Your task to perform on an android device: set the timer Image 0: 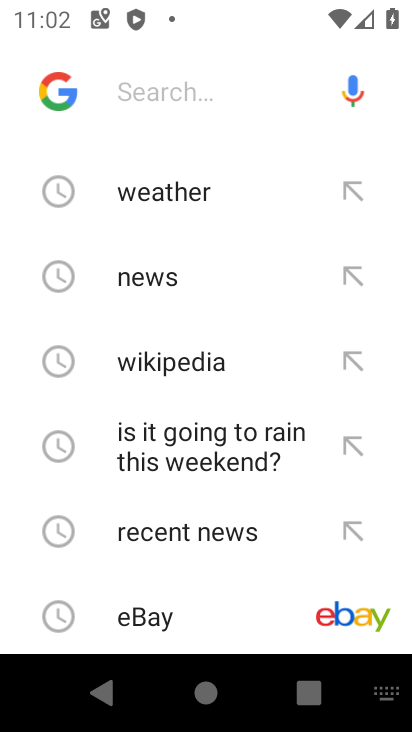
Step 0: press home button
Your task to perform on an android device: set the timer Image 1: 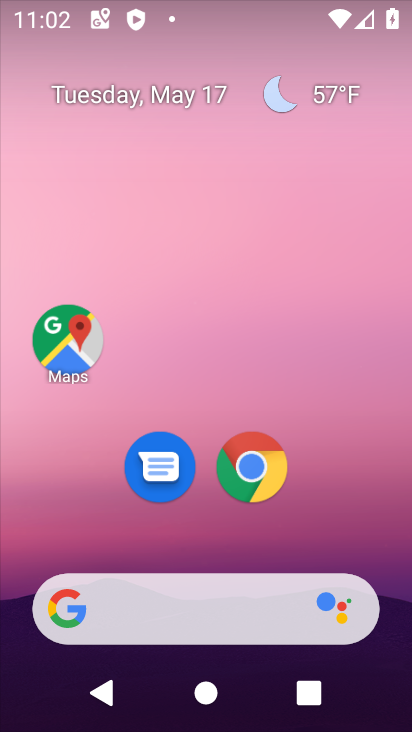
Step 1: click (66, 340)
Your task to perform on an android device: set the timer Image 2: 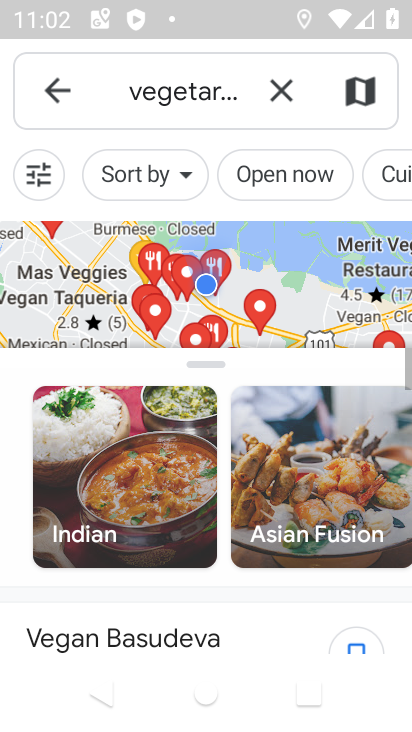
Step 2: press home button
Your task to perform on an android device: set the timer Image 3: 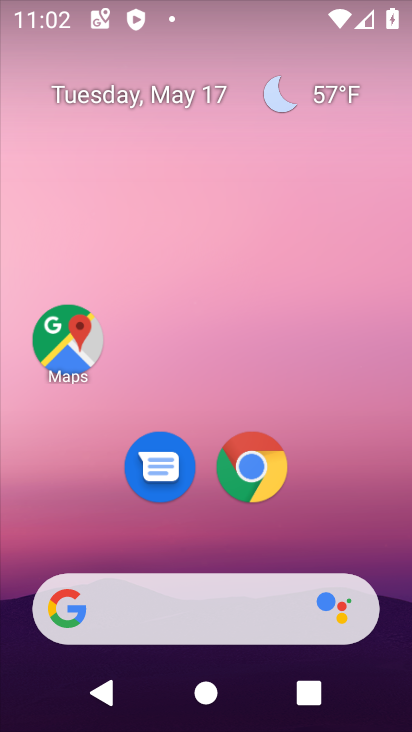
Step 3: drag from (185, 495) to (234, 84)
Your task to perform on an android device: set the timer Image 4: 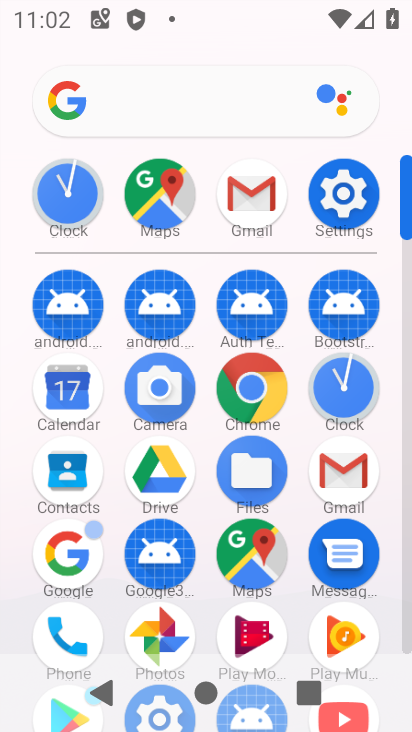
Step 4: click (349, 394)
Your task to perform on an android device: set the timer Image 5: 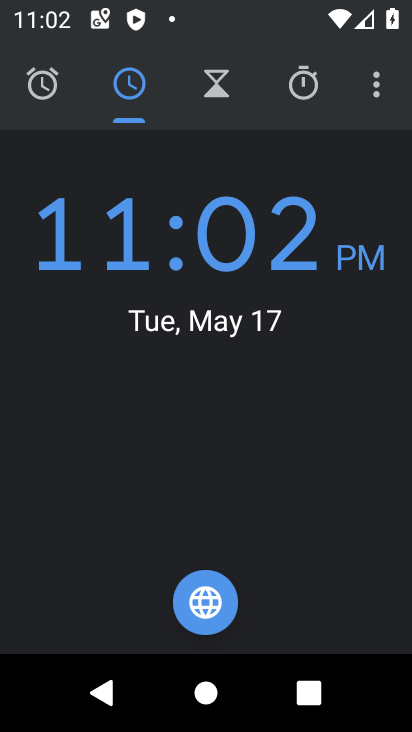
Step 5: click (218, 81)
Your task to perform on an android device: set the timer Image 6: 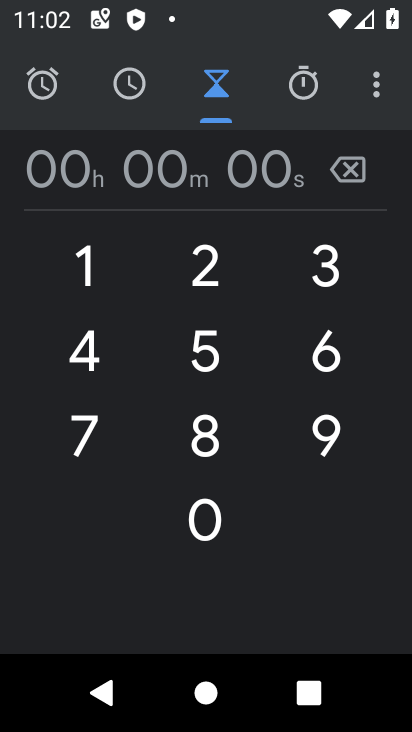
Step 6: click (207, 527)
Your task to perform on an android device: set the timer Image 7: 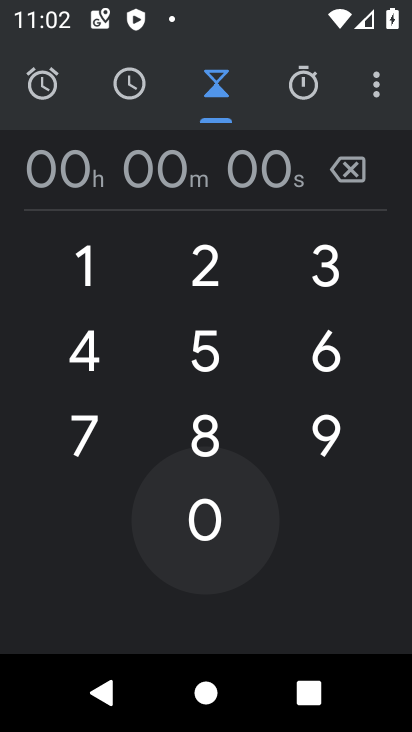
Step 7: click (203, 418)
Your task to perform on an android device: set the timer Image 8: 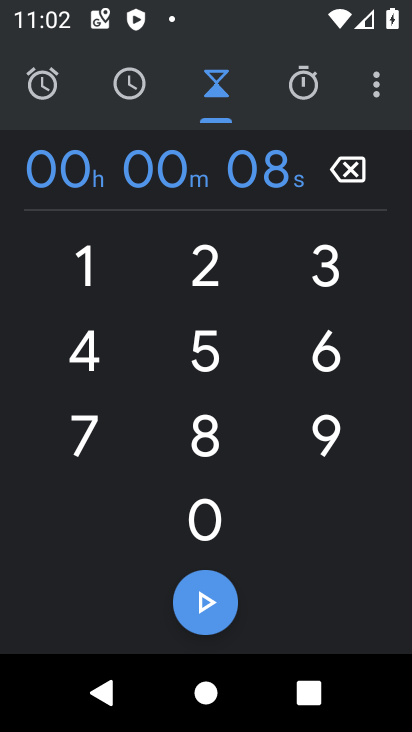
Step 8: click (197, 523)
Your task to perform on an android device: set the timer Image 9: 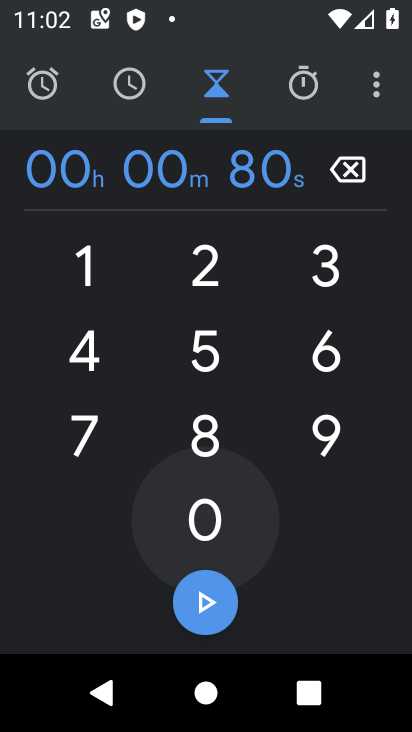
Step 9: click (223, 340)
Your task to perform on an android device: set the timer Image 10: 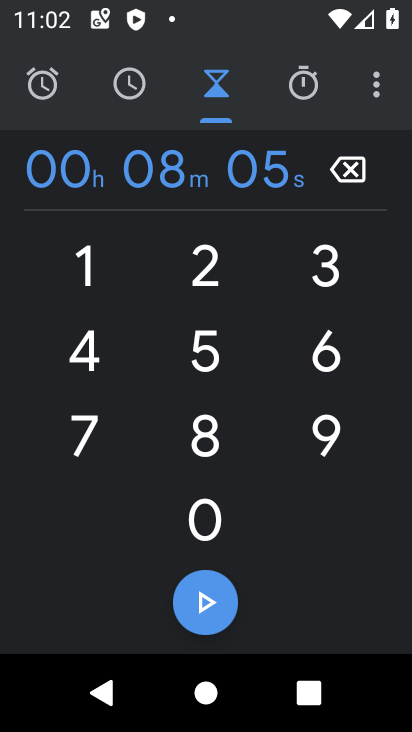
Step 10: click (200, 611)
Your task to perform on an android device: set the timer Image 11: 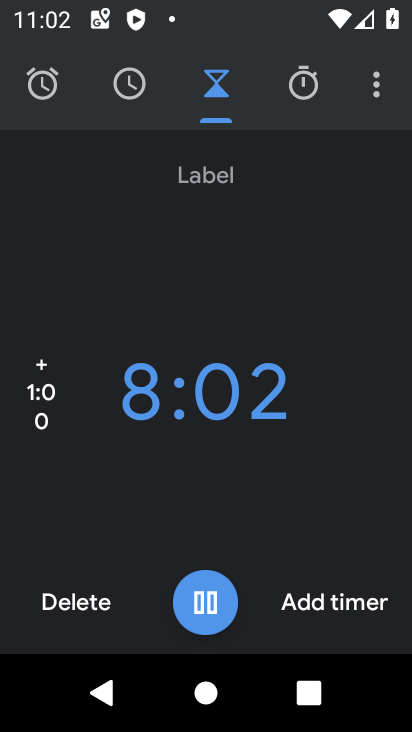
Step 11: task complete